Your task to perform on an android device: Show the shopping cart on walmart. Search for "logitech g pro" on walmart, select the first entry, and add it to the cart. Image 0: 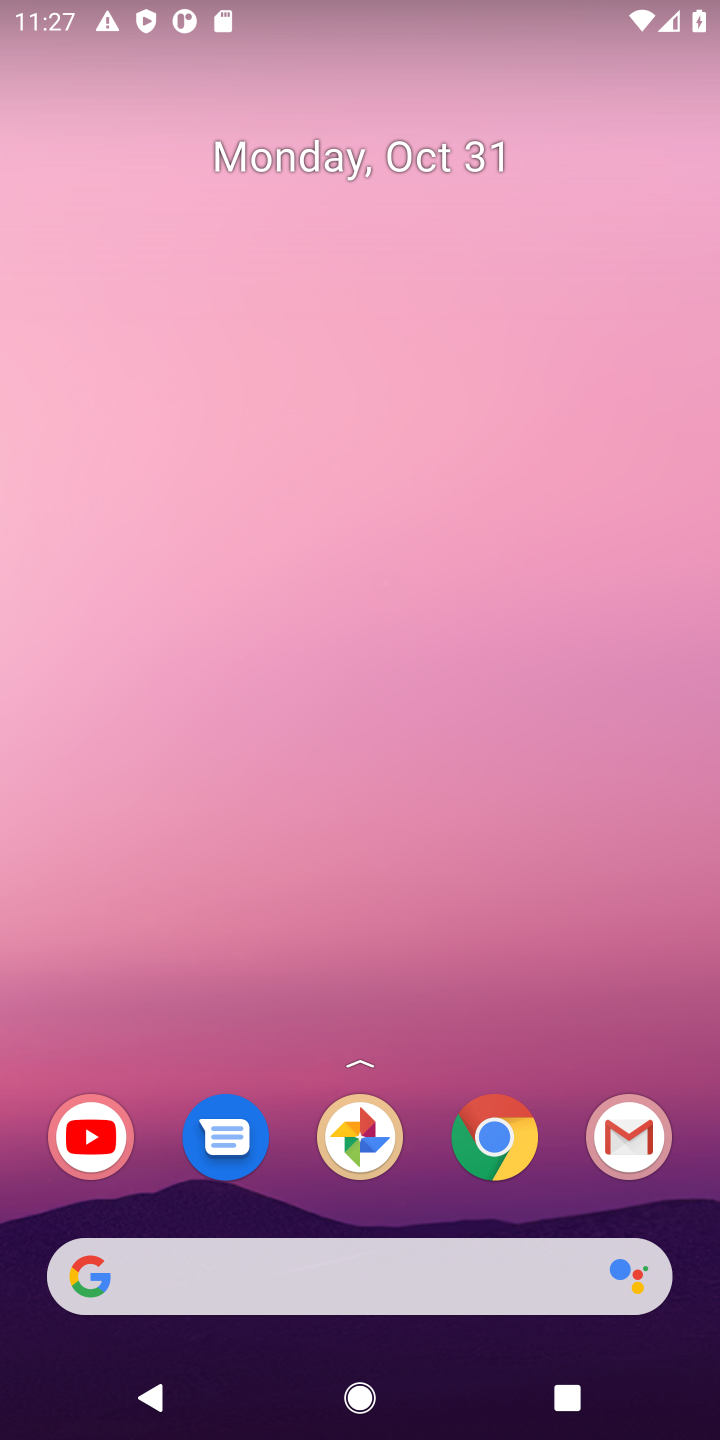
Step 0: click (491, 1136)
Your task to perform on an android device: Show the shopping cart on walmart. Search for "logitech g pro" on walmart, select the first entry, and add it to the cart. Image 1: 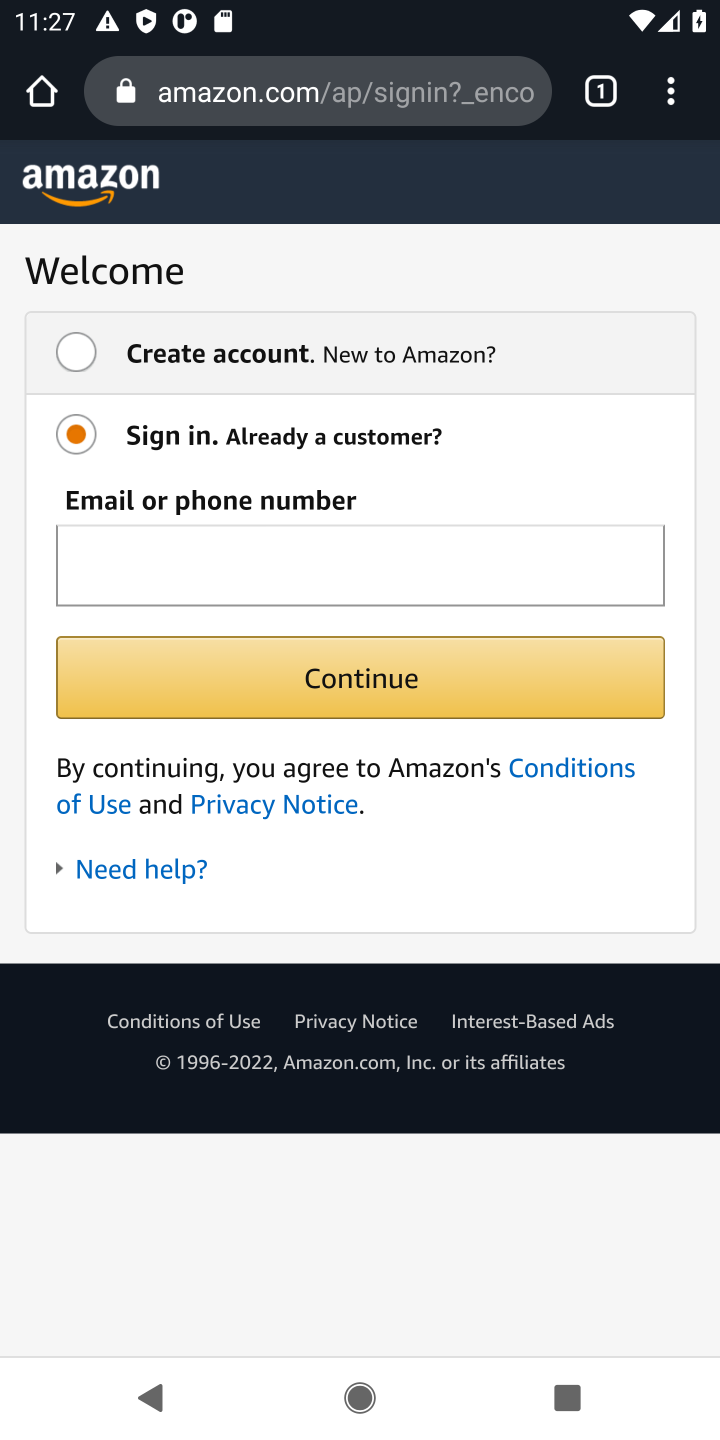
Step 1: click (333, 96)
Your task to perform on an android device: Show the shopping cart on walmart. Search for "logitech g pro" on walmart, select the first entry, and add it to the cart. Image 2: 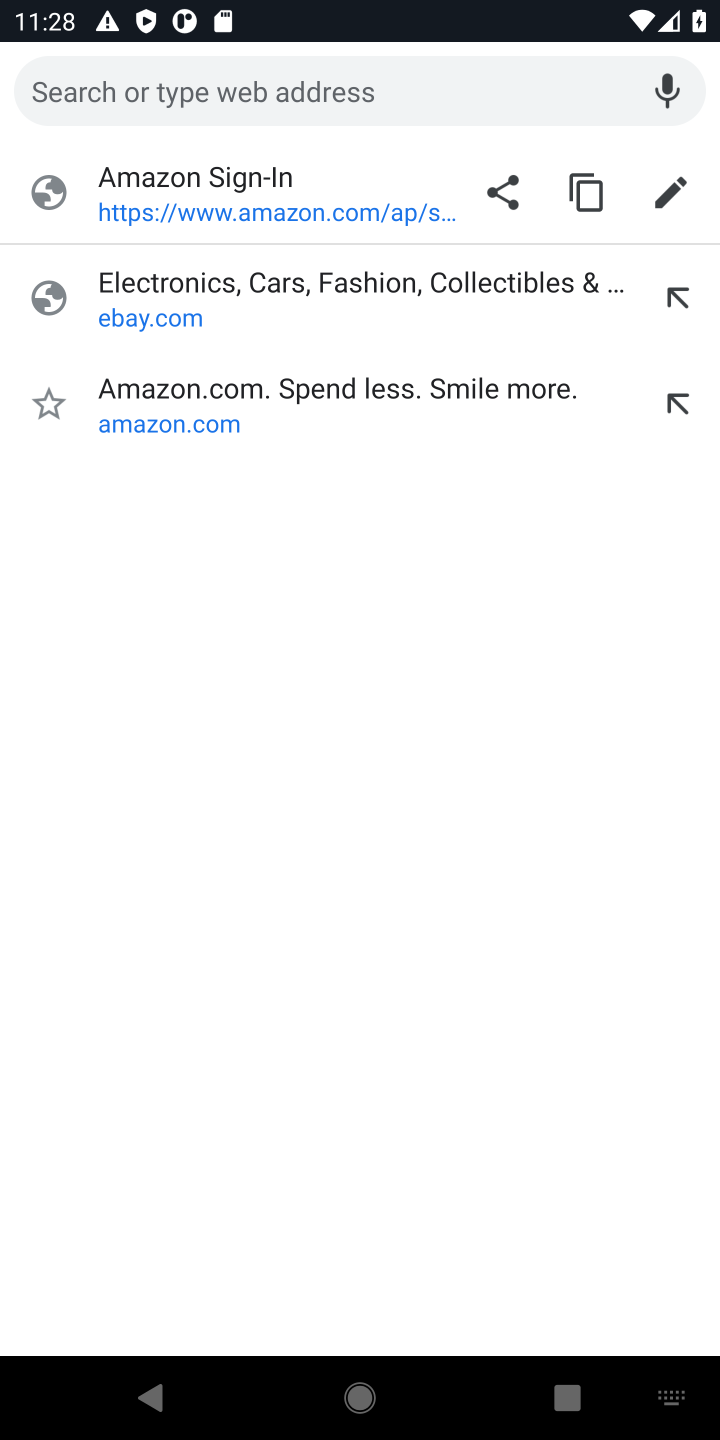
Step 2: type "walmart"
Your task to perform on an android device: Show the shopping cart on walmart. Search for "logitech g pro" on walmart, select the first entry, and add it to the cart. Image 3: 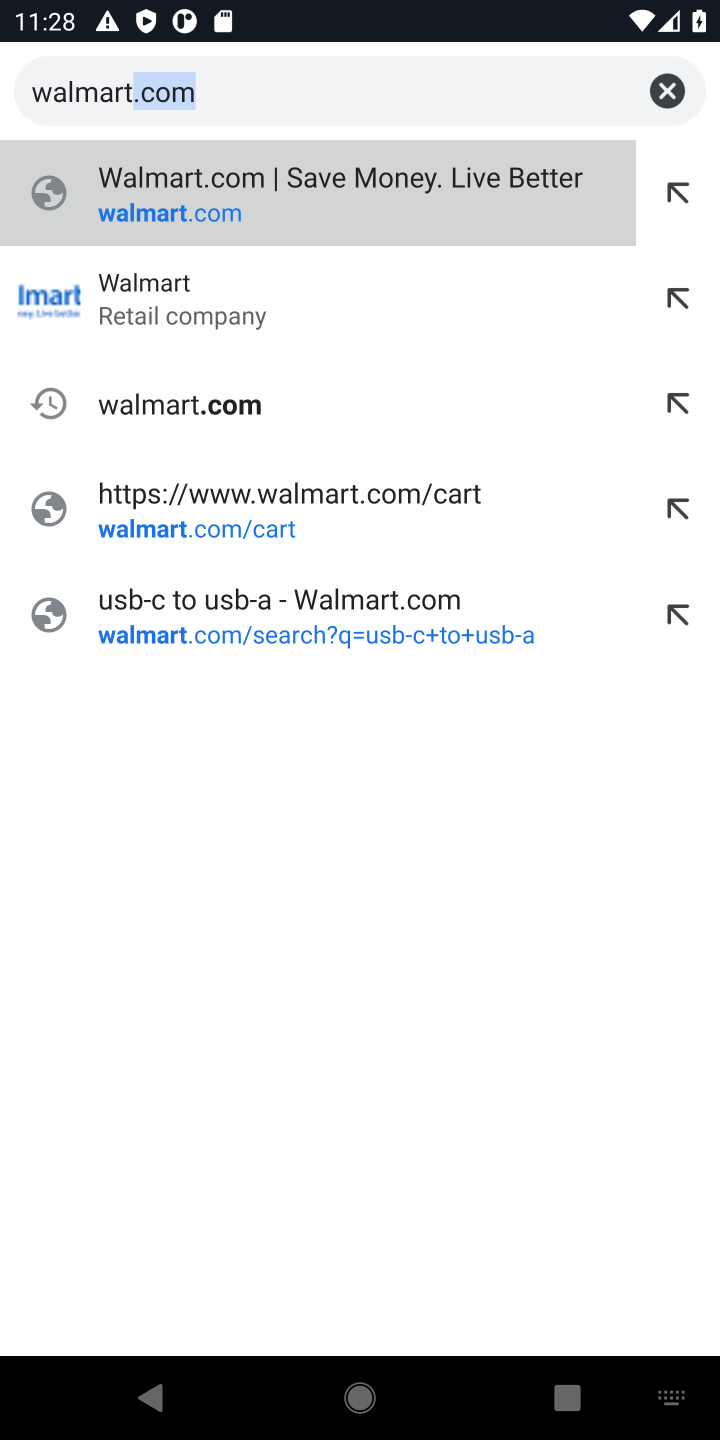
Step 3: click (166, 304)
Your task to perform on an android device: Show the shopping cart on walmart. Search for "logitech g pro" on walmart, select the first entry, and add it to the cart. Image 4: 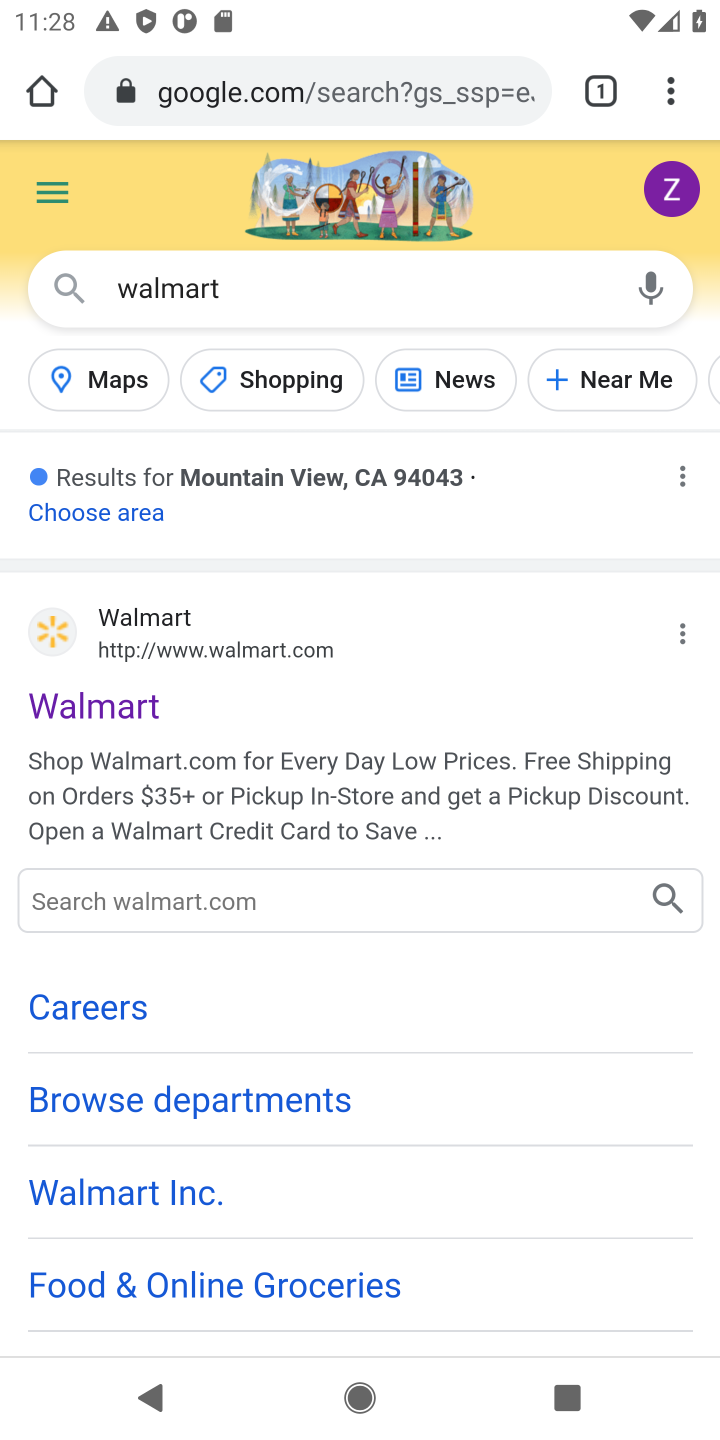
Step 4: click (124, 704)
Your task to perform on an android device: Show the shopping cart on walmart. Search for "logitech g pro" on walmart, select the first entry, and add it to the cart. Image 5: 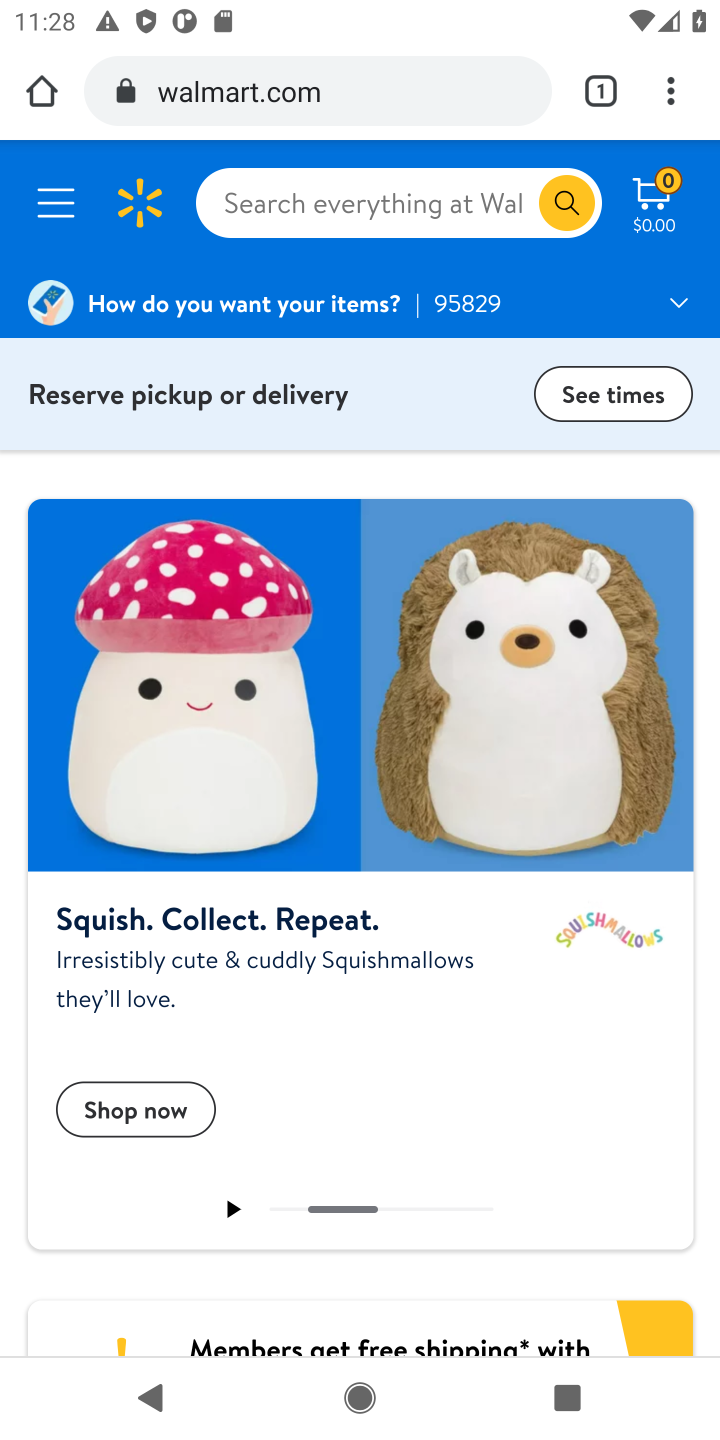
Step 5: click (657, 196)
Your task to perform on an android device: Show the shopping cart on walmart. Search for "logitech g pro" on walmart, select the first entry, and add it to the cart. Image 6: 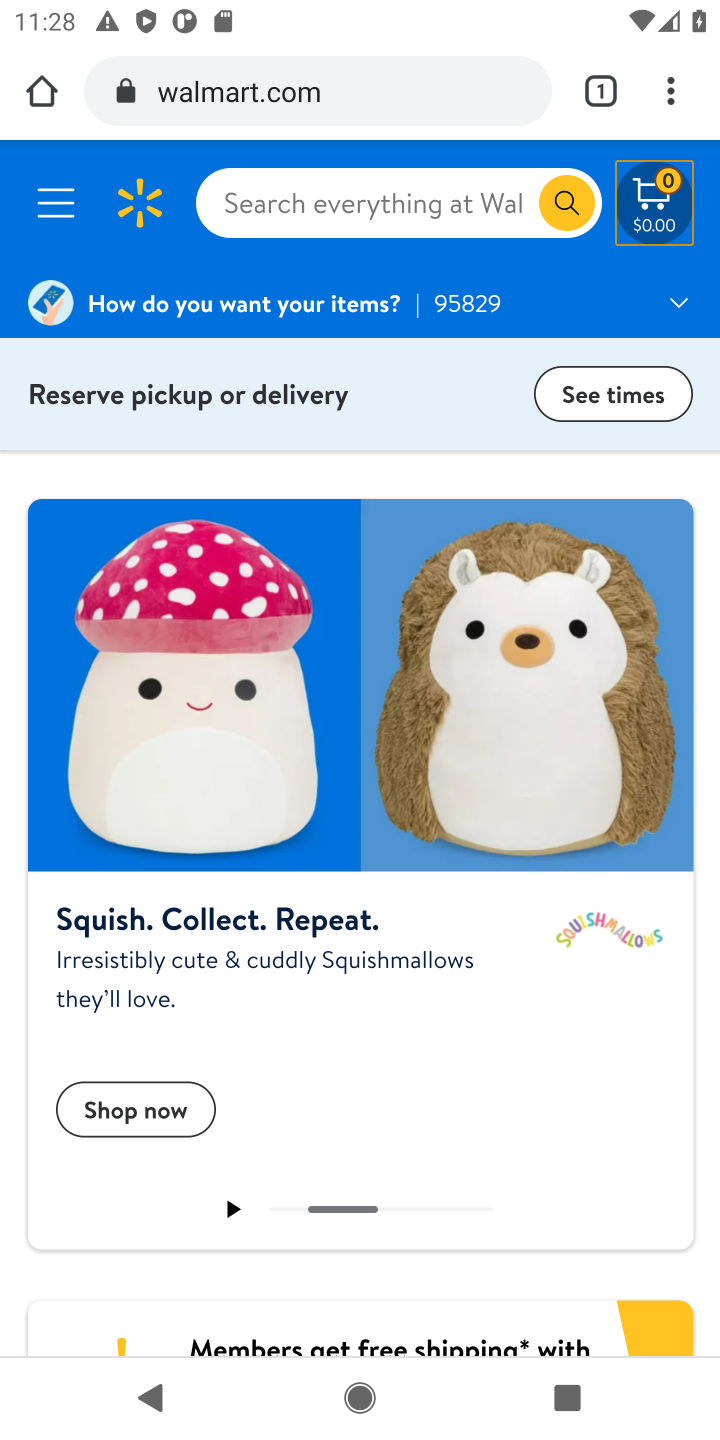
Step 6: click (658, 208)
Your task to perform on an android device: Show the shopping cart on walmart. Search for "logitech g pro" on walmart, select the first entry, and add it to the cart. Image 7: 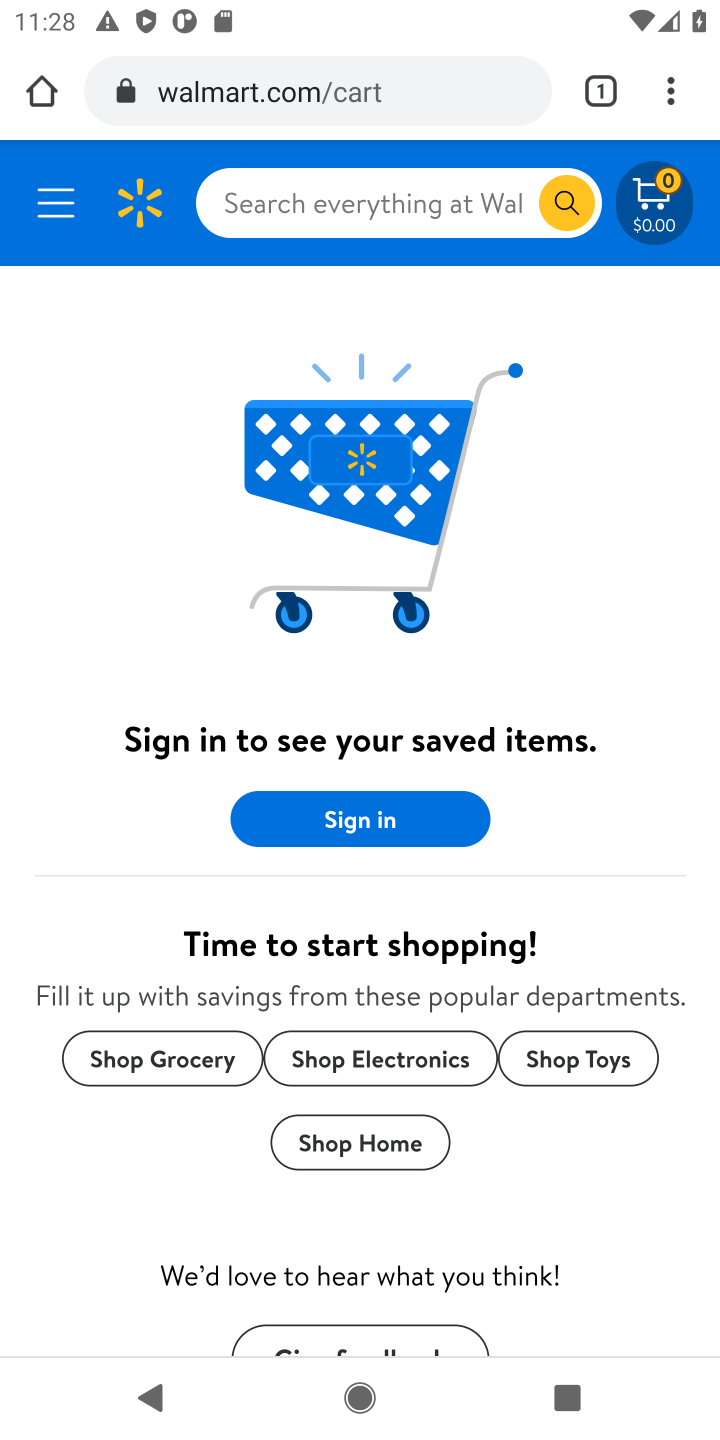
Step 7: click (444, 206)
Your task to perform on an android device: Show the shopping cart on walmart. Search for "logitech g pro" on walmart, select the first entry, and add it to the cart. Image 8: 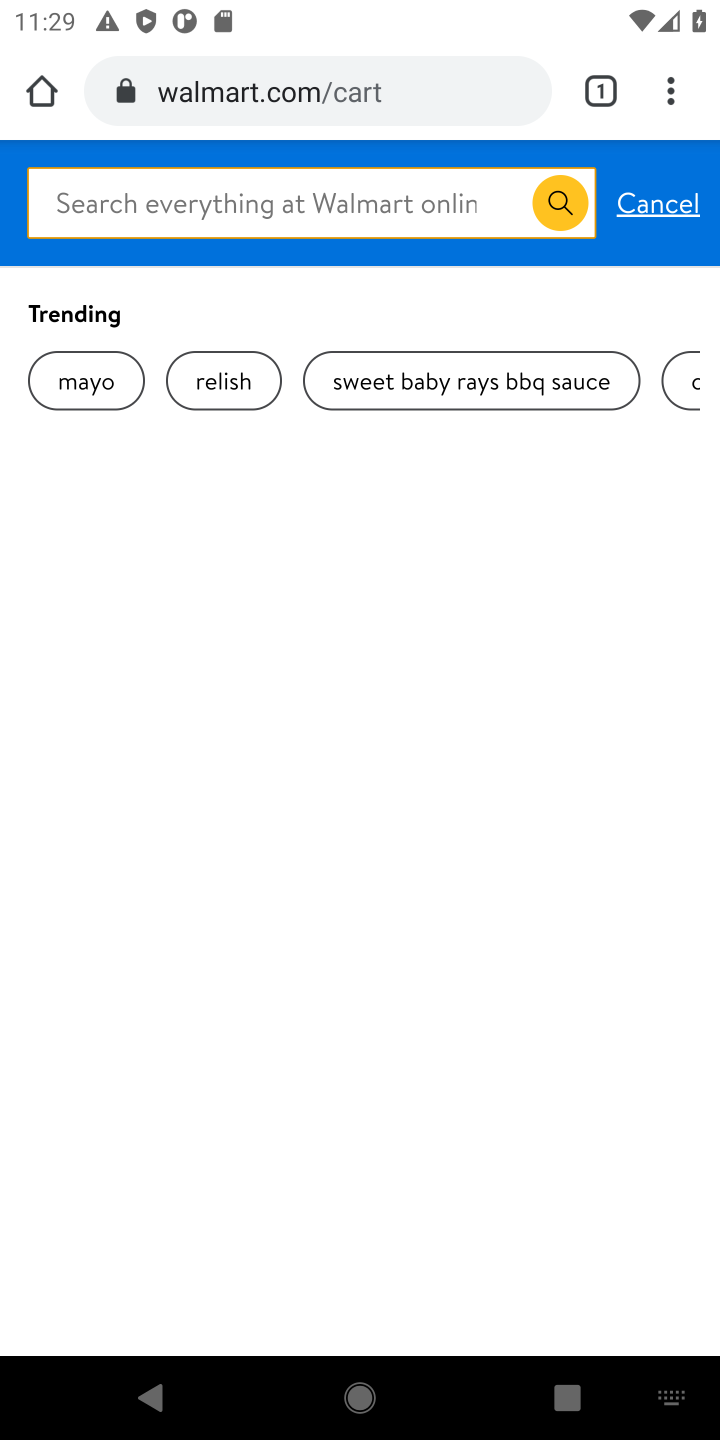
Step 8: type "logitech g pro"
Your task to perform on an android device: Show the shopping cart on walmart. Search for "logitech g pro" on walmart, select the first entry, and add it to the cart. Image 9: 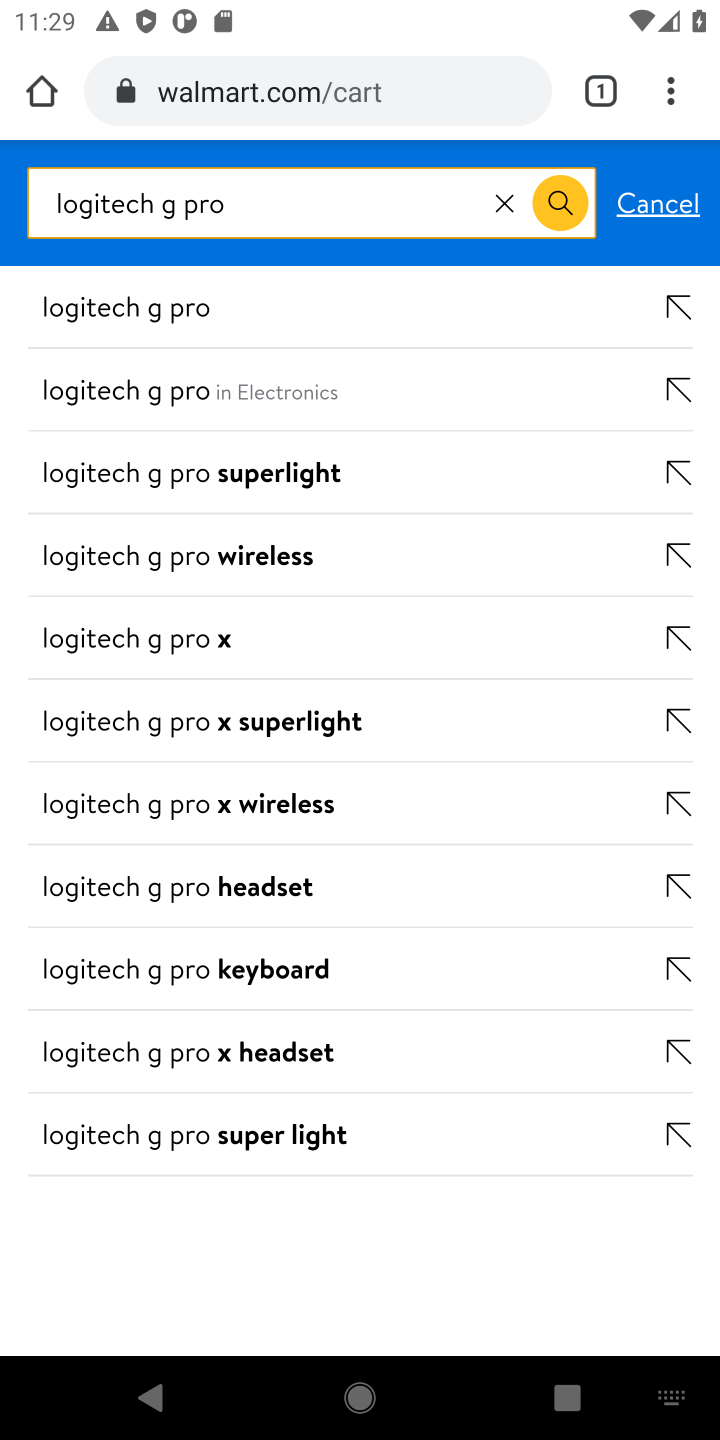
Step 9: click (155, 308)
Your task to perform on an android device: Show the shopping cart on walmart. Search for "logitech g pro" on walmart, select the first entry, and add it to the cart. Image 10: 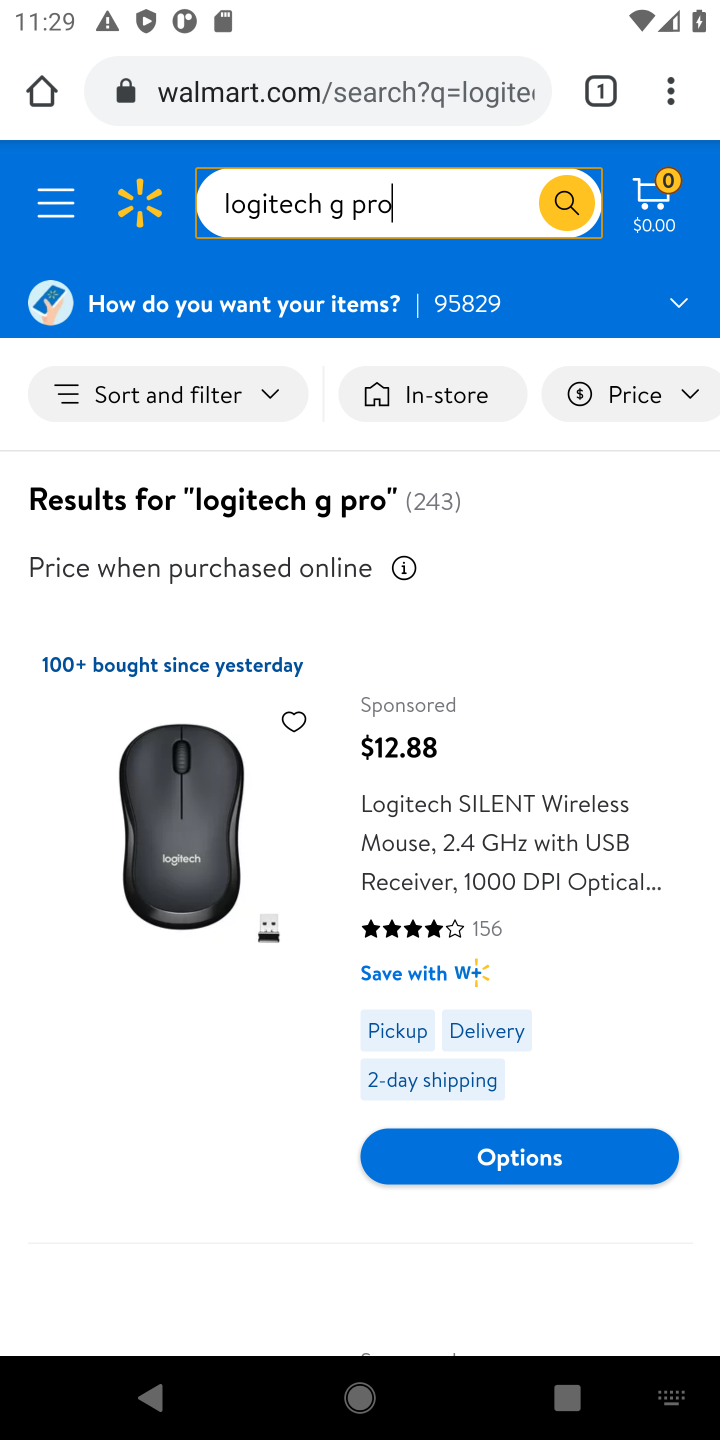
Step 10: click (468, 805)
Your task to perform on an android device: Show the shopping cart on walmart. Search for "logitech g pro" on walmart, select the first entry, and add it to the cart. Image 11: 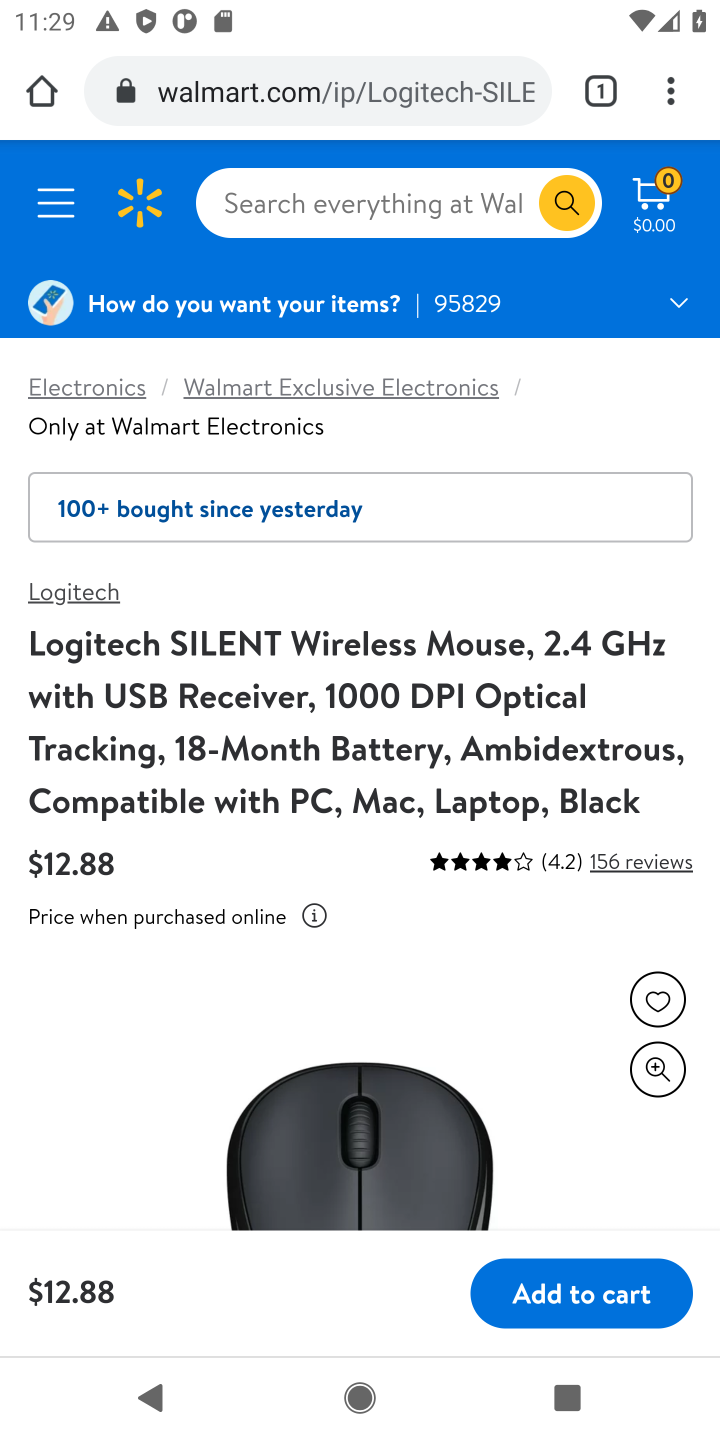
Step 11: click (580, 1291)
Your task to perform on an android device: Show the shopping cart on walmart. Search for "logitech g pro" on walmart, select the first entry, and add it to the cart. Image 12: 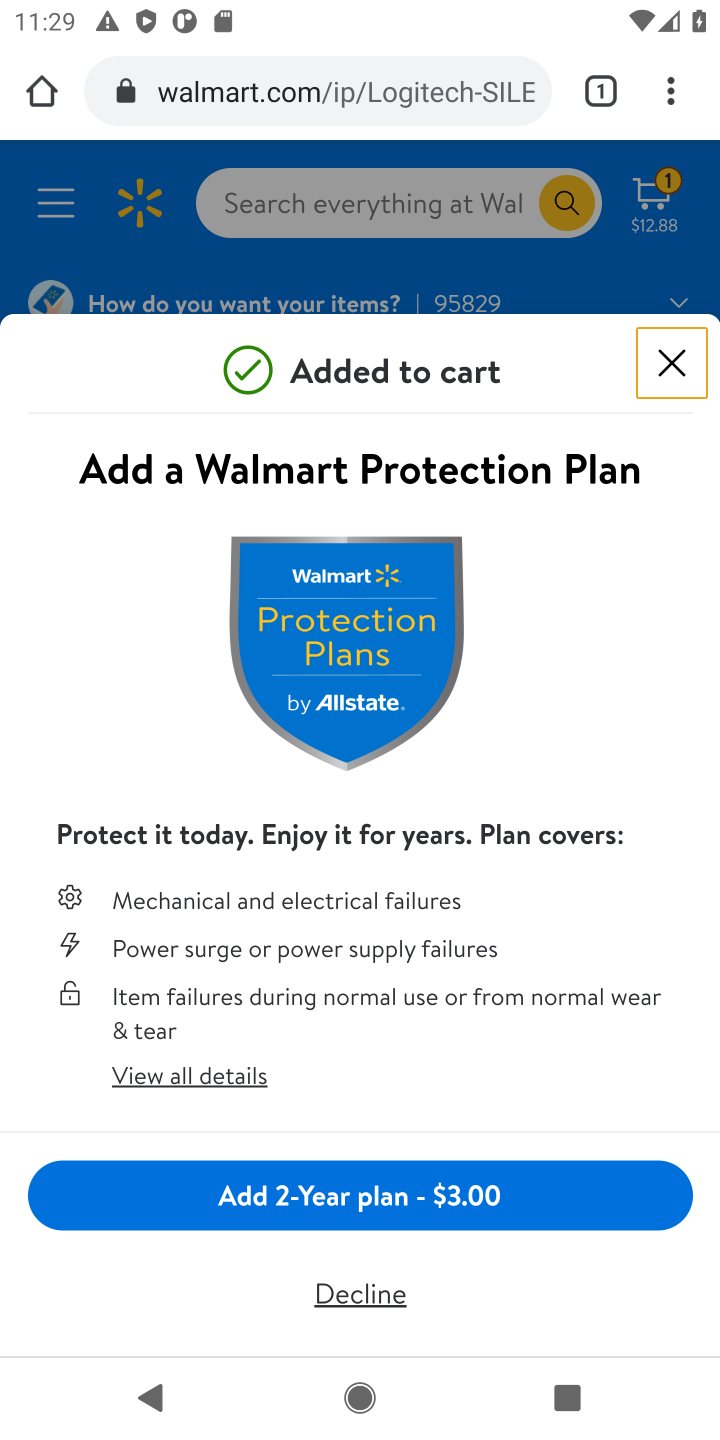
Step 12: click (352, 1298)
Your task to perform on an android device: Show the shopping cart on walmart. Search for "logitech g pro" on walmart, select the first entry, and add it to the cart. Image 13: 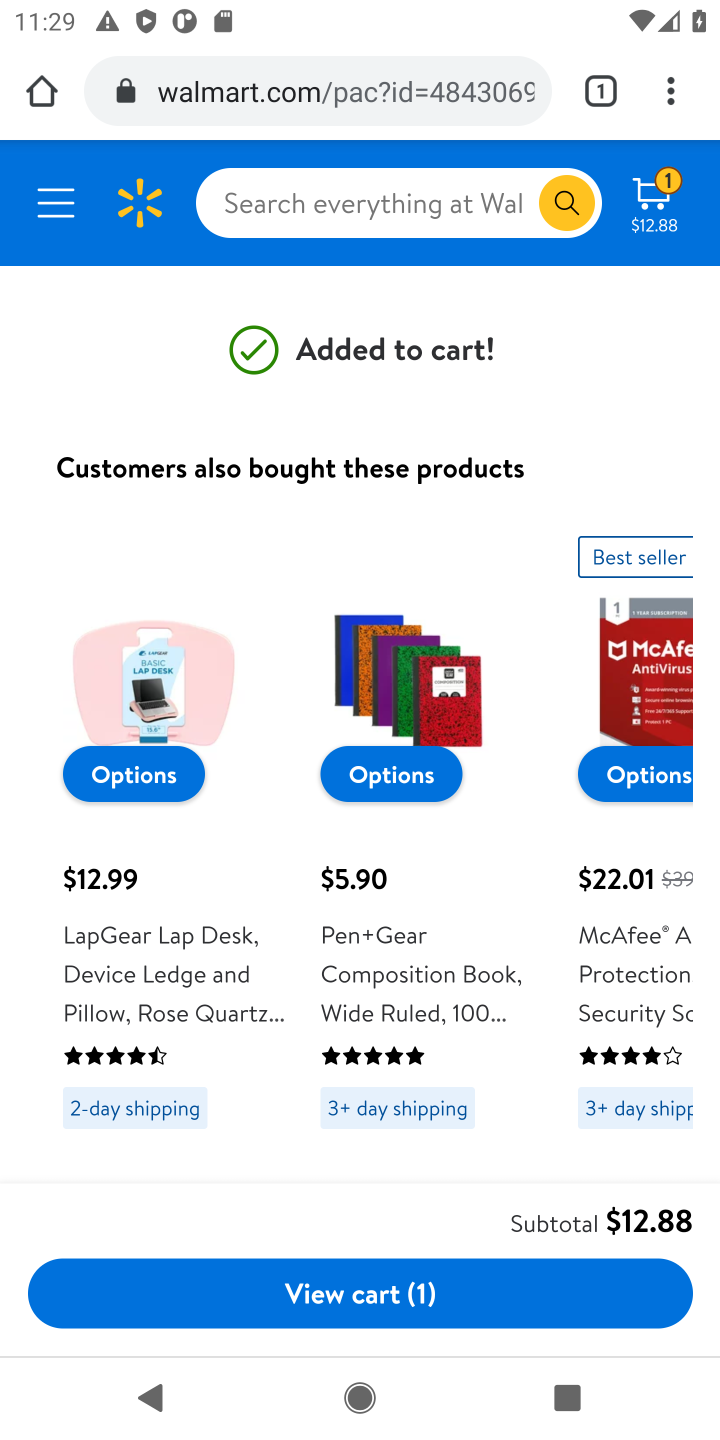
Step 13: task complete